Your task to perform on an android device: Open Maps and search for coffee Image 0: 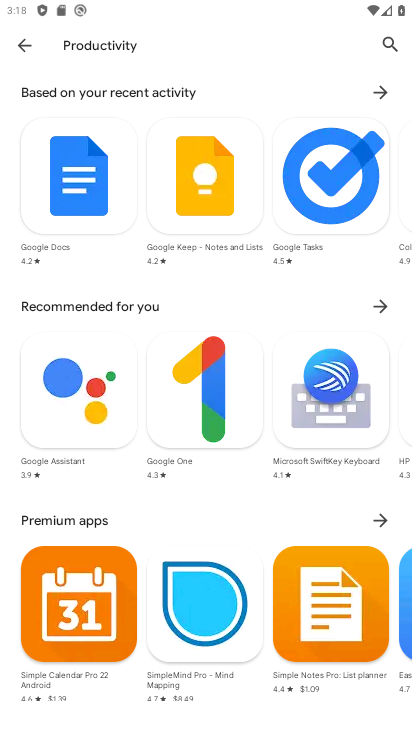
Step 0: press home button
Your task to perform on an android device: Open Maps and search for coffee Image 1: 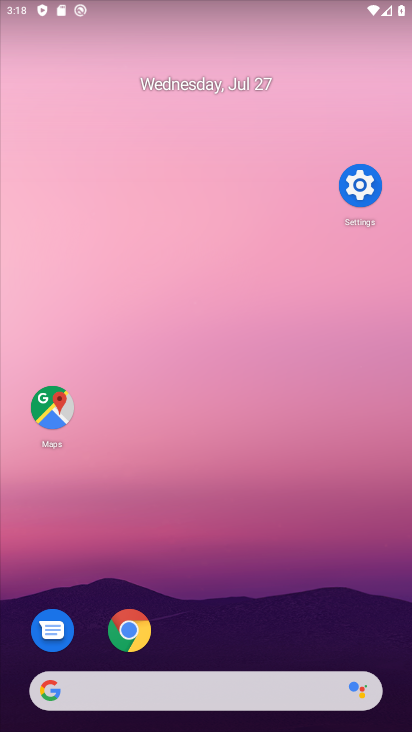
Step 1: click (48, 407)
Your task to perform on an android device: Open Maps and search for coffee Image 2: 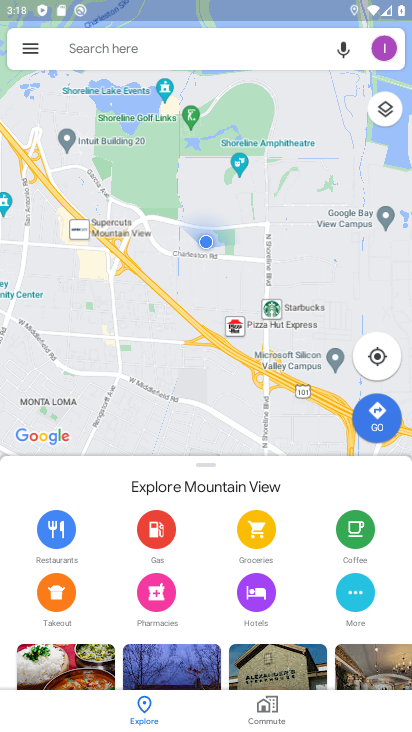
Step 2: click (116, 54)
Your task to perform on an android device: Open Maps and search for coffee Image 3: 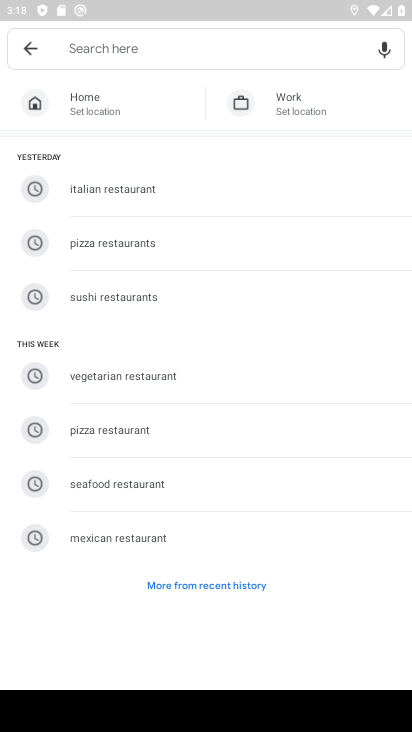
Step 3: type "coffee"
Your task to perform on an android device: Open Maps and search for coffee Image 4: 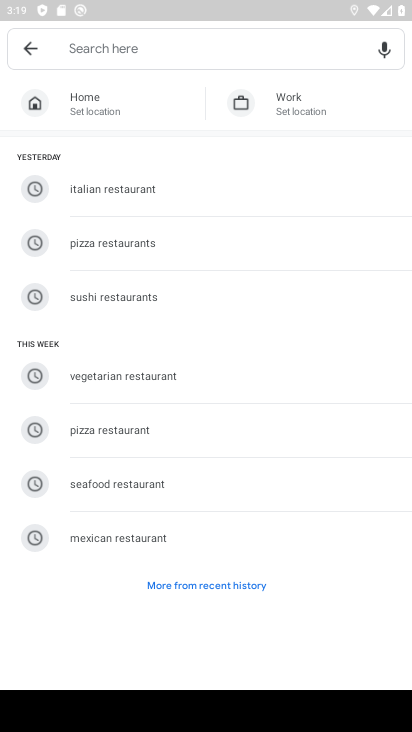
Step 4: click (89, 52)
Your task to perform on an android device: Open Maps and search for coffee Image 5: 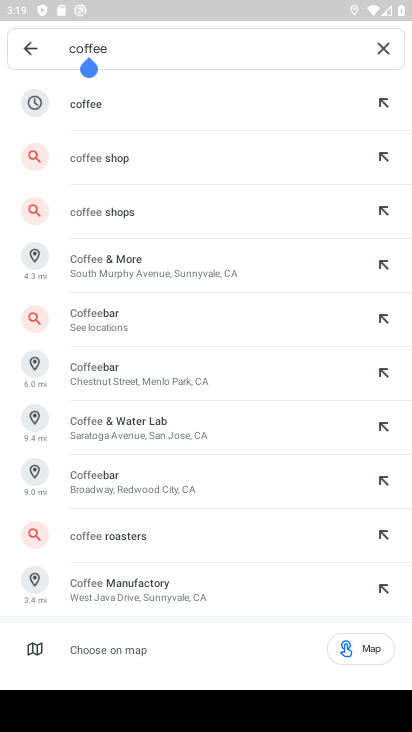
Step 5: click (104, 110)
Your task to perform on an android device: Open Maps and search for coffee Image 6: 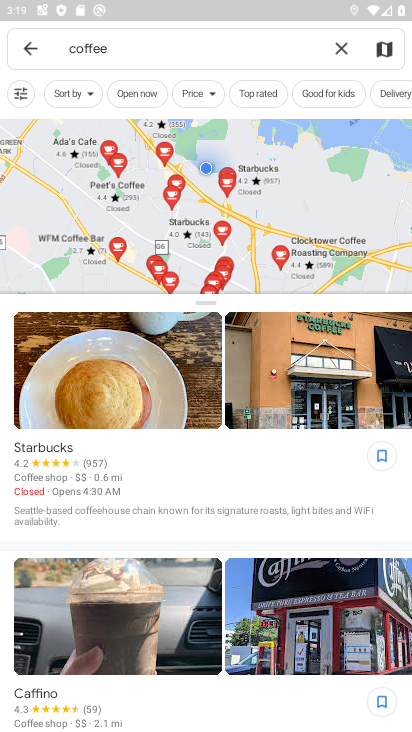
Step 6: task complete